Your task to perform on an android device: Open maps Image 0: 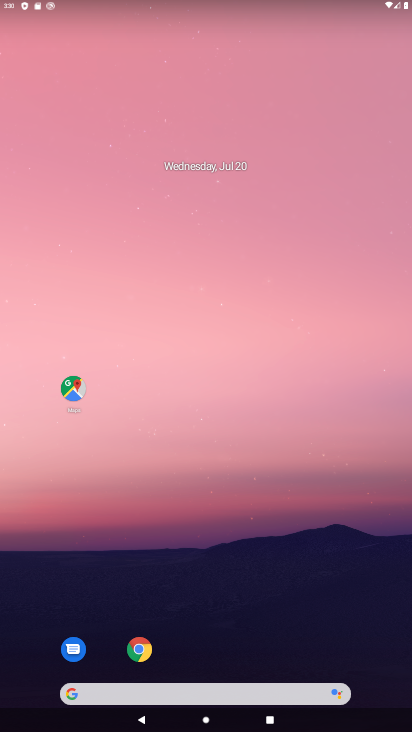
Step 0: click (73, 396)
Your task to perform on an android device: Open maps Image 1: 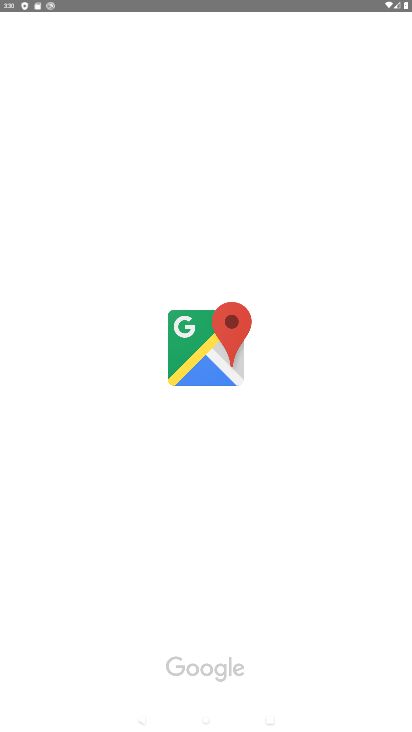
Step 1: task complete